Your task to perform on an android device: turn on the 12-hour format for clock Image 0: 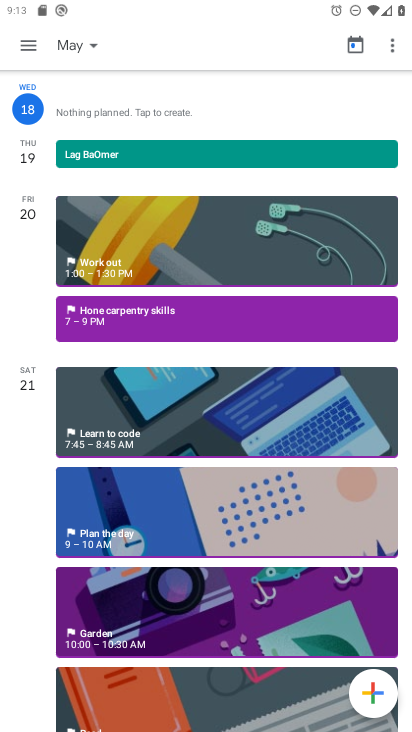
Step 0: press home button
Your task to perform on an android device: turn on the 12-hour format for clock Image 1: 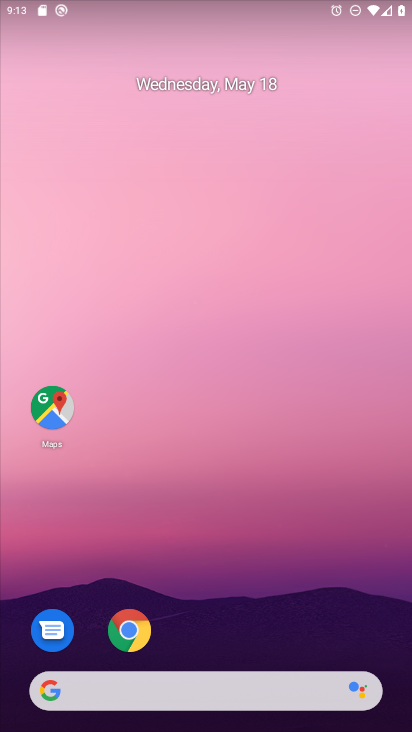
Step 1: drag from (166, 418) to (144, 95)
Your task to perform on an android device: turn on the 12-hour format for clock Image 2: 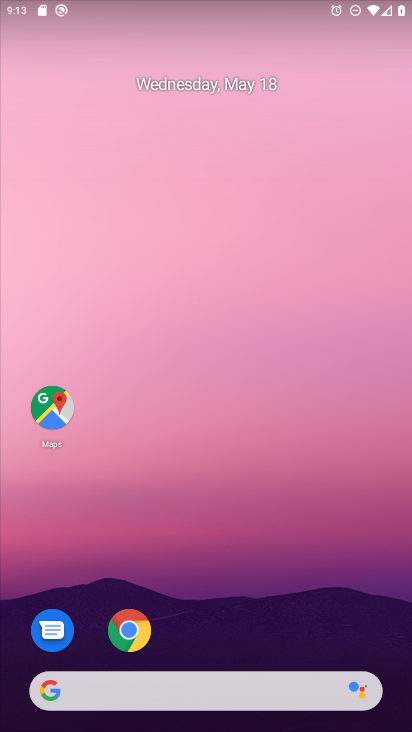
Step 2: drag from (216, 654) to (179, 109)
Your task to perform on an android device: turn on the 12-hour format for clock Image 3: 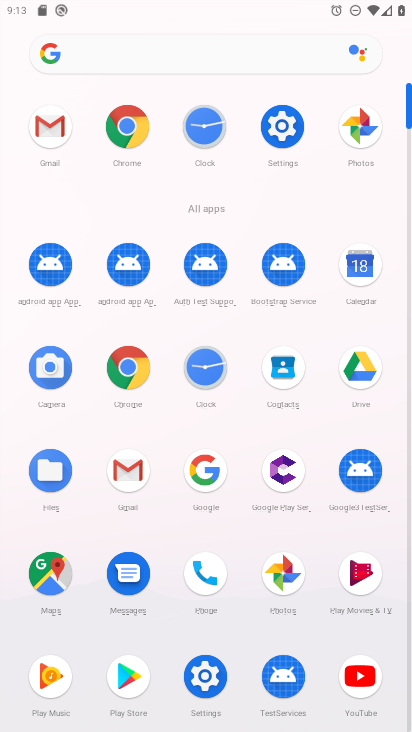
Step 3: click (209, 384)
Your task to perform on an android device: turn on the 12-hour format for clock Image 4: 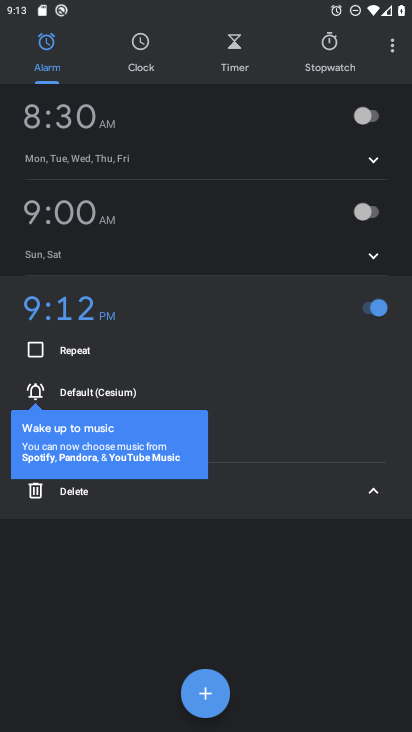
Step 4: click (390, 54)
Your task to perform on an android device: turn on the 12-hour format for clock Image 5: 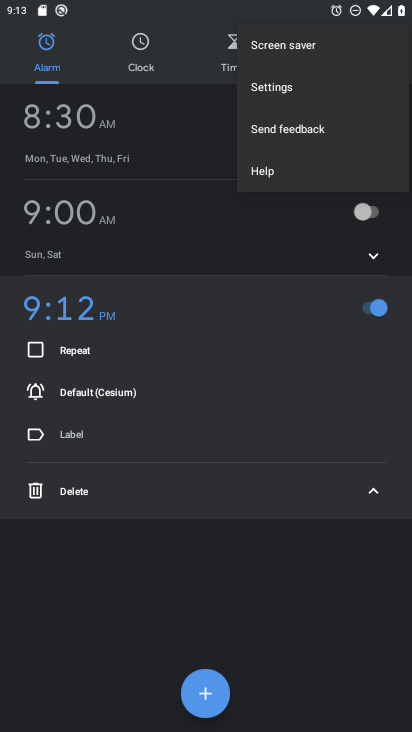
Step 5: click (278, 76)
Your task to perform on an android device: turn on the 12-hour format for clock Image 6: 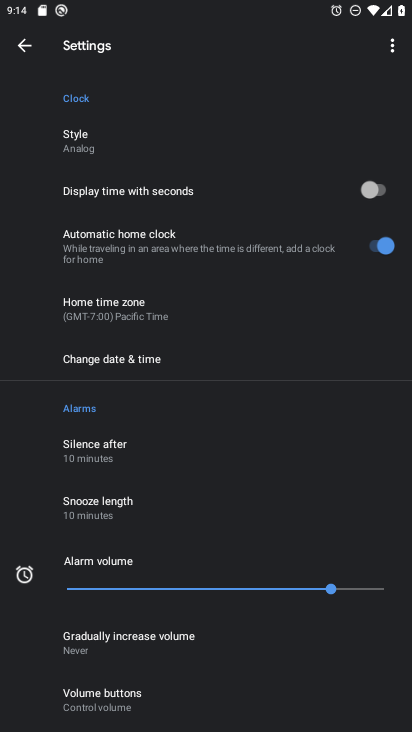
Step 6: click (157, 357)
Your task to perform on an android device: turn on the 12-hour format for clock Image 7: 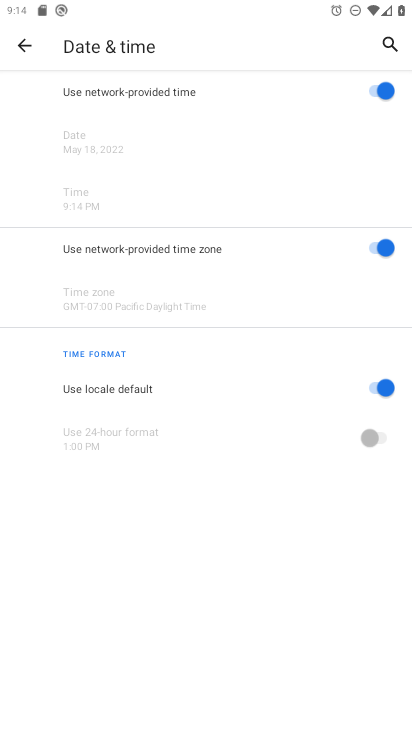
Step 7: task complete